Your task to perform on an android device: Open Chrome and go to the settings page Image 0: 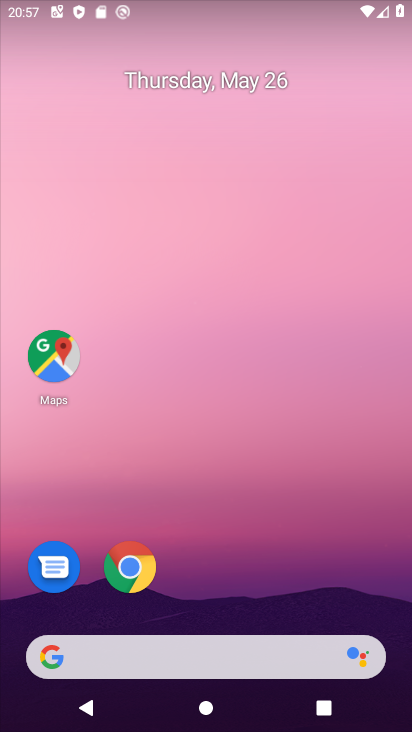
Step 0: drag from (250, 583) to (209, 321)
Your task to perform on an android device: Open Chrome and go to the settings page Image 1: 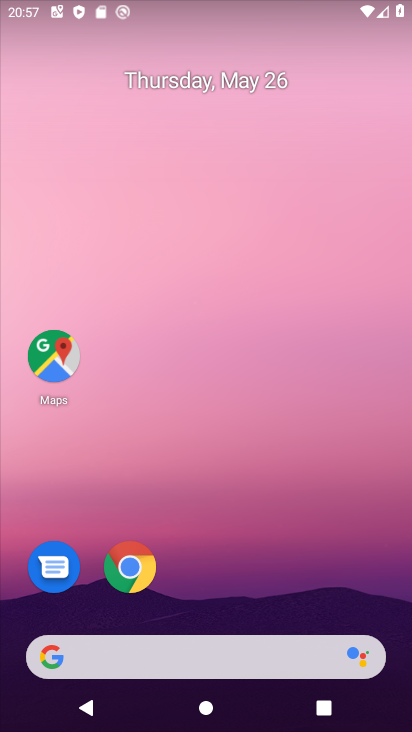
Step 1: click (126, 573)
Your task to perform on an android device: Open Chrome and go to the settings page Image 2: 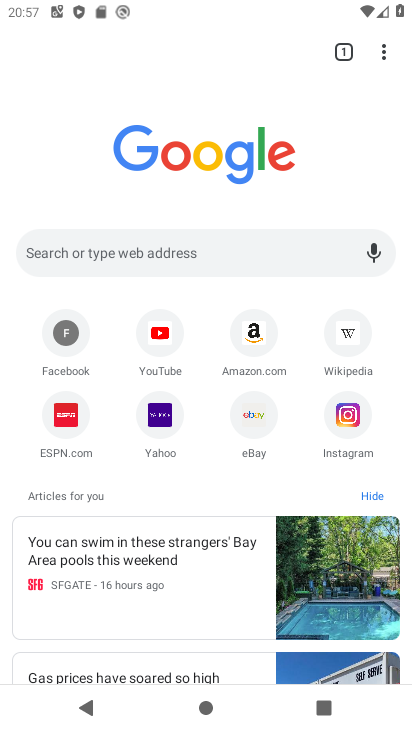
Step 2: click (388, 48)
Your task to perform on an android device: Open Chrome and go to the settings page Image 3: 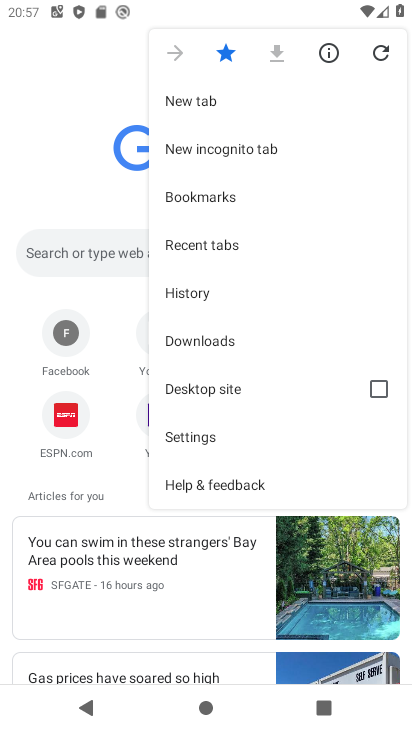
Step 3: click (206, 437)
Your task to perform on an android device: Open Chrome and go to the settings page Image 4: 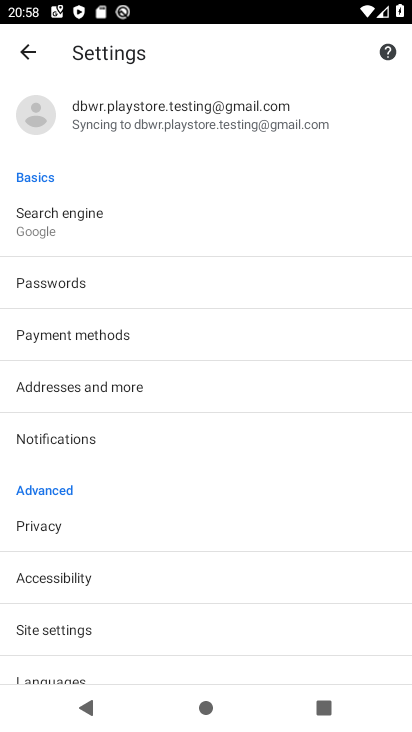
Step 4: task complete